Your task to perform on an android device: turn on location history Image 0: 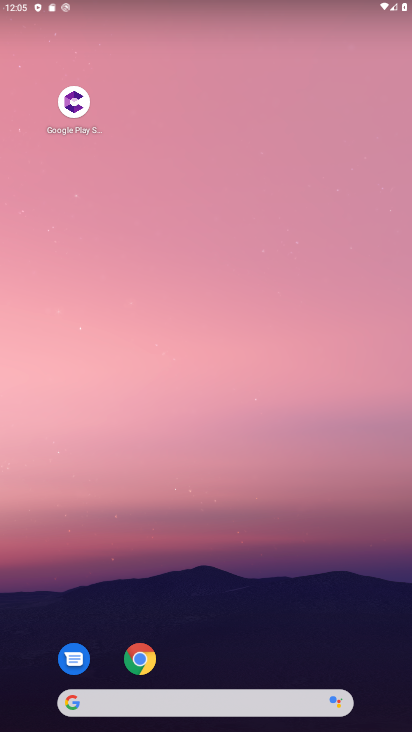
Step 0: drag from (219, 668) to (176, 37)
Your task to perform on an android device: turn on location history Image 1: 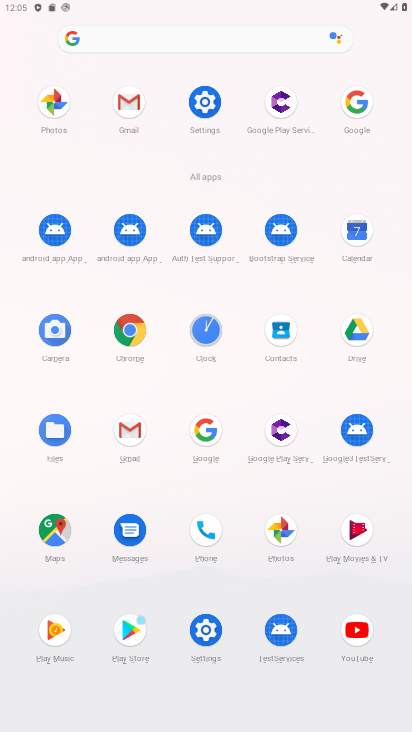
Step 1: click (205, 113)
Your task to perform on an android device: turn on location history Image 2: 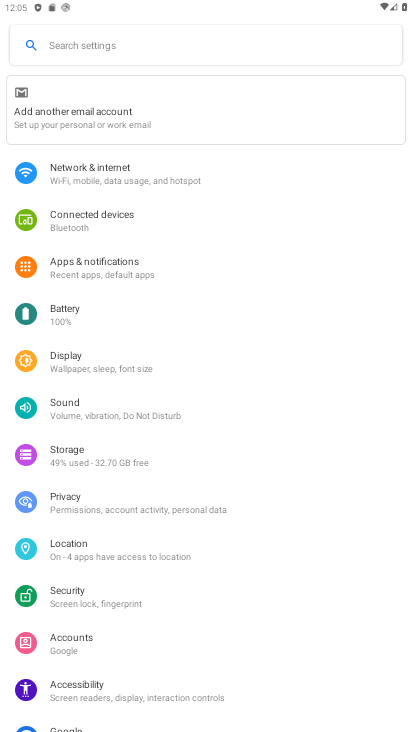
Step 2: click (94, 564)
Your task to perform on an android device: turn on location history Image 3: 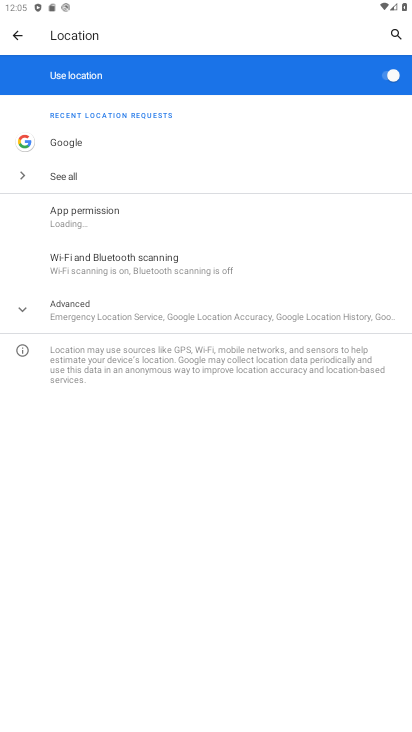
Step 3: click (88, 317)
Your task to perform on an android device: turn on location history Image 4: 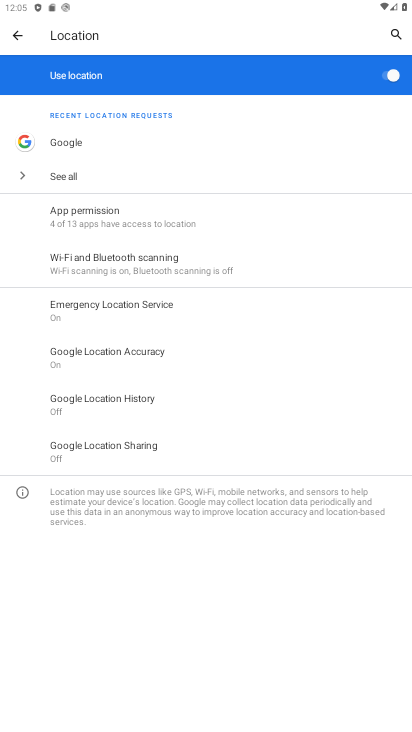
Step 4: click (119, 402)
Your task to perform on an android device: turn on location history Image 5: 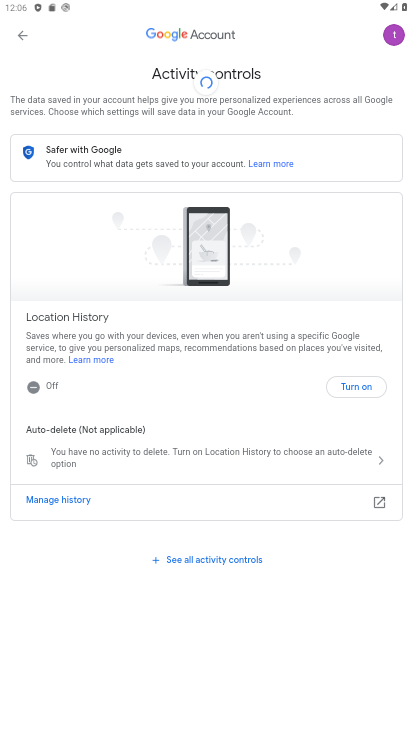
Step 5: click (361, 391)
Your task to perform on an android device: turn on location history Image 6: 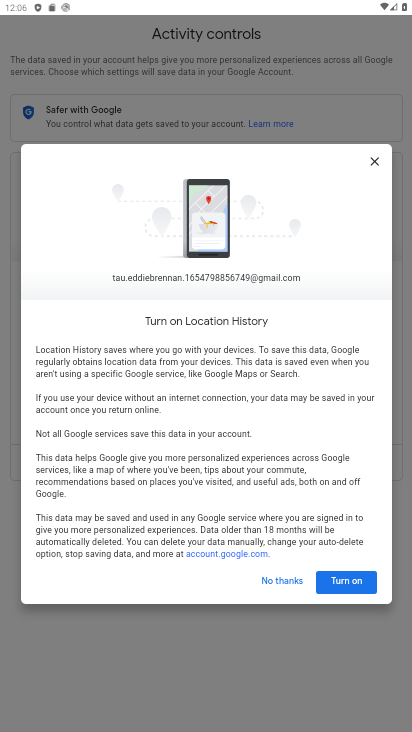
Step 6: click (350, 585)
Your task to perform on an android device: turn on location history Image 7: 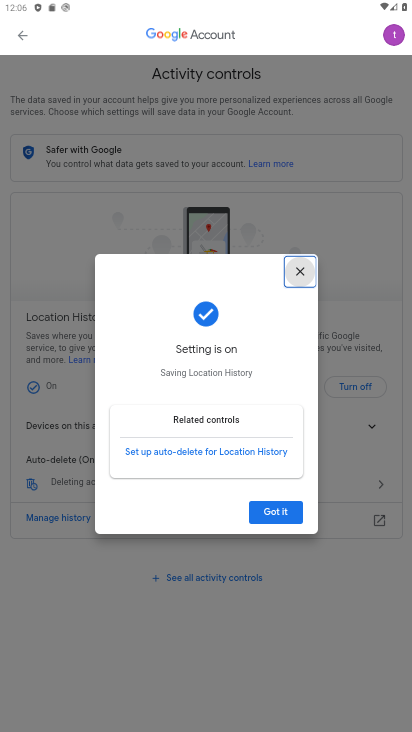
Step 7: click (279, 514)
Your task to perform on an android device: turn on location history Image 8: 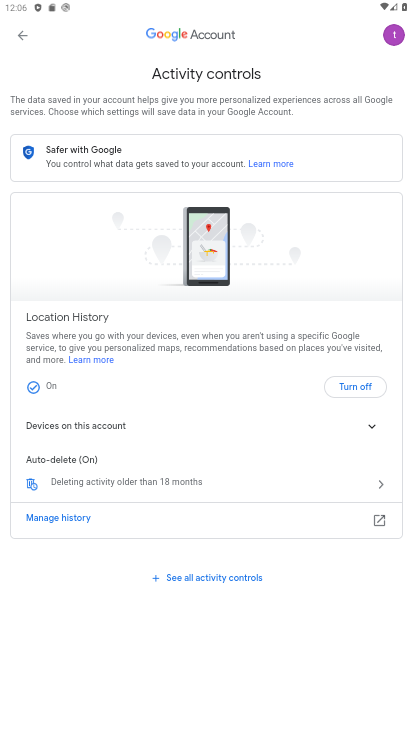
Step 8: task complete